Your task to perform on an android device: toggle show notifications on the lock screen Image 0: 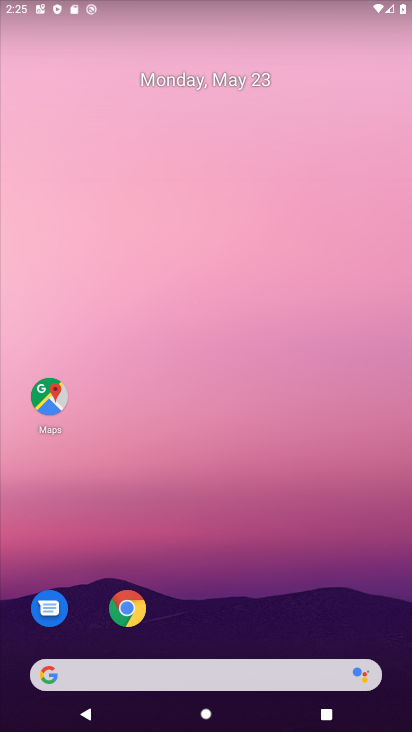
Step 0: drag from (200, 624) to (227, 135)
Your task to perform on an android device: toggle show notifications on the lock screen Image 1: 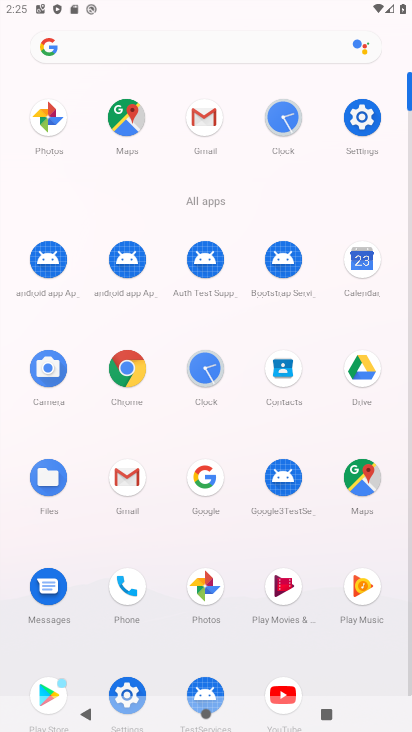
Step 1: click (121, 691)
Your task to perform on an android device: toggle show notifications on the lock screen Image 2: 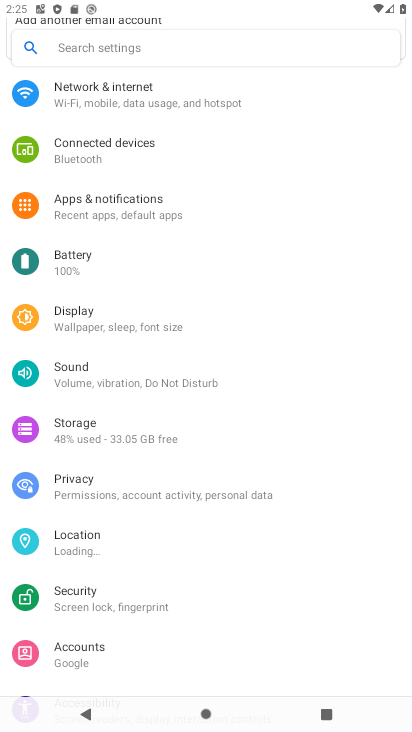
Step 2: click (109, 213)
Your task to perform on an android device: toggle show notifications on the lock screen Image 3: 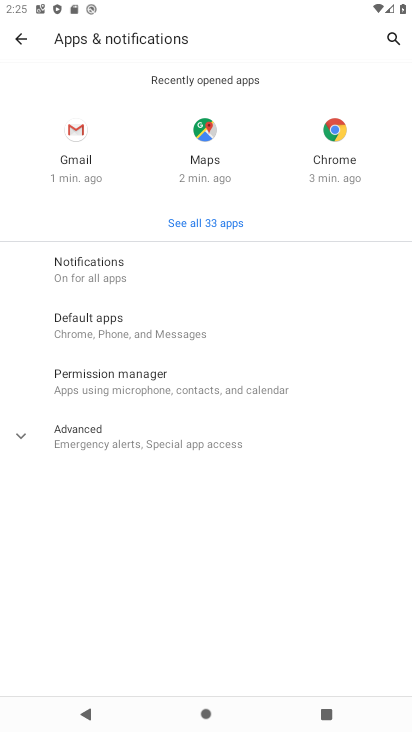
Step 3: click (119, 275)
Your task to perform on an android device: toggle show notifications on the lock screen Image 4: 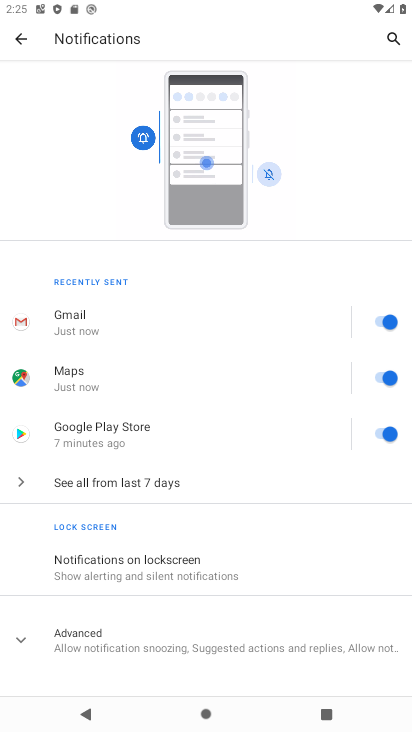
Step 4: click (173, 563)
Your task to perform on an android device: toggle show notifications on the lock screen Image 5: 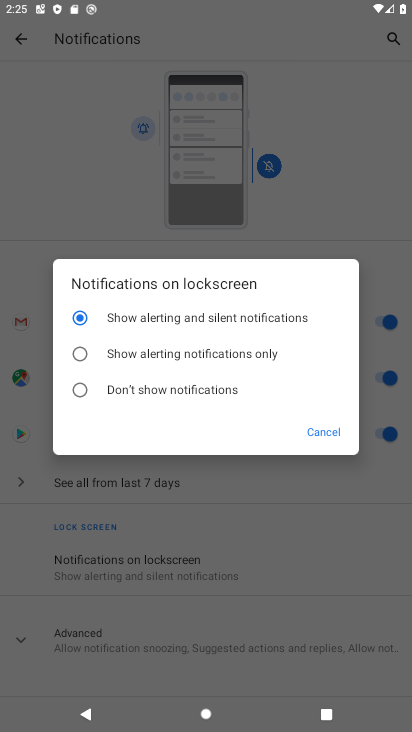
Step 5: click (129, 388)
Your task to perform on an android device: toggle show notifications on the lock screen Image 6: 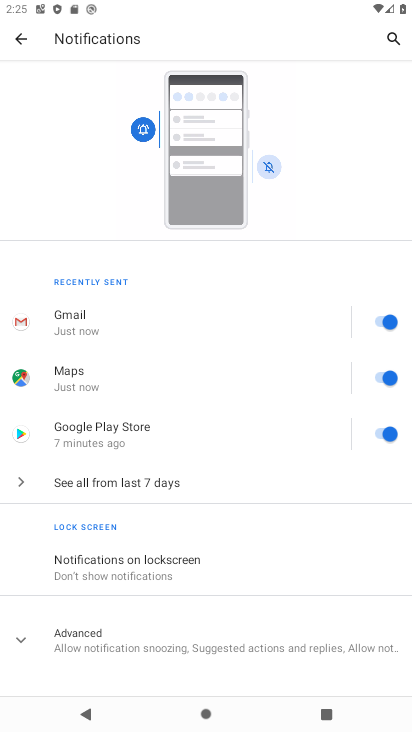
Step 6: task complete